Your task to perform on an android device: Do I have any events today? Image 0: 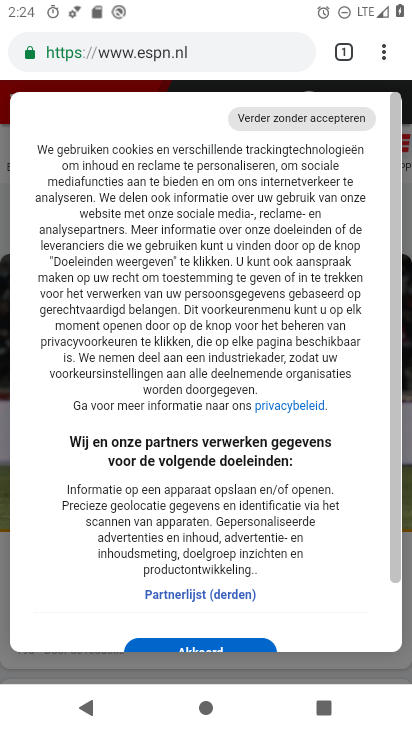
Step 0: click (269, 619)
Your task to perform on an android device: Do I have any events today? Image 1: 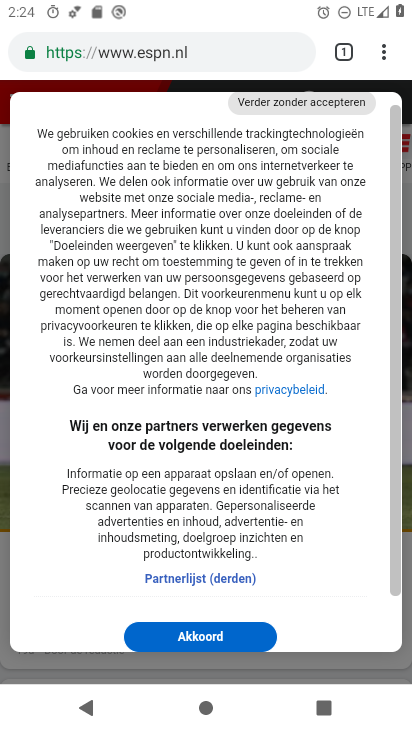
Step 1: press home button
Your task to perform on an android device: Do I have any events today? Image 2: 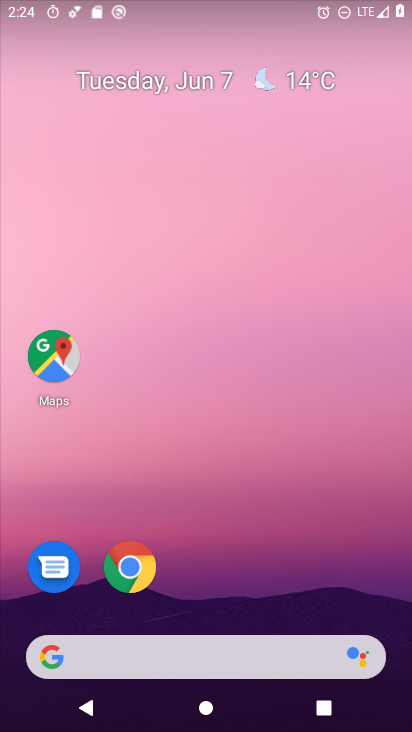
Step 2: click (186, 85)
Your task to perform on an android device: Do I have any events today? Image 3: 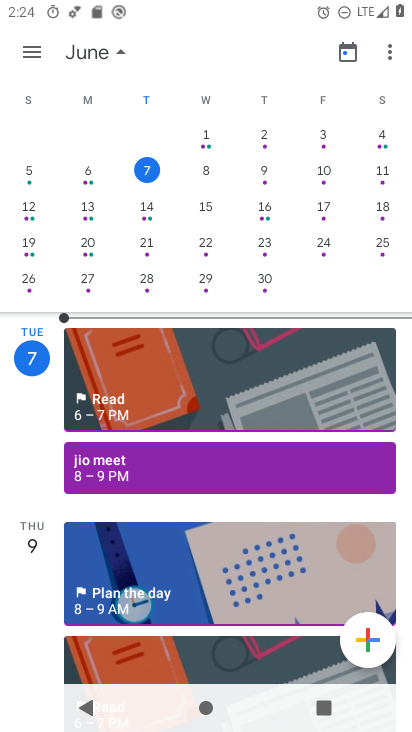
Step 3: task complete